Your task to perform on an android device: Search for good Chinese restaurants Image 0: 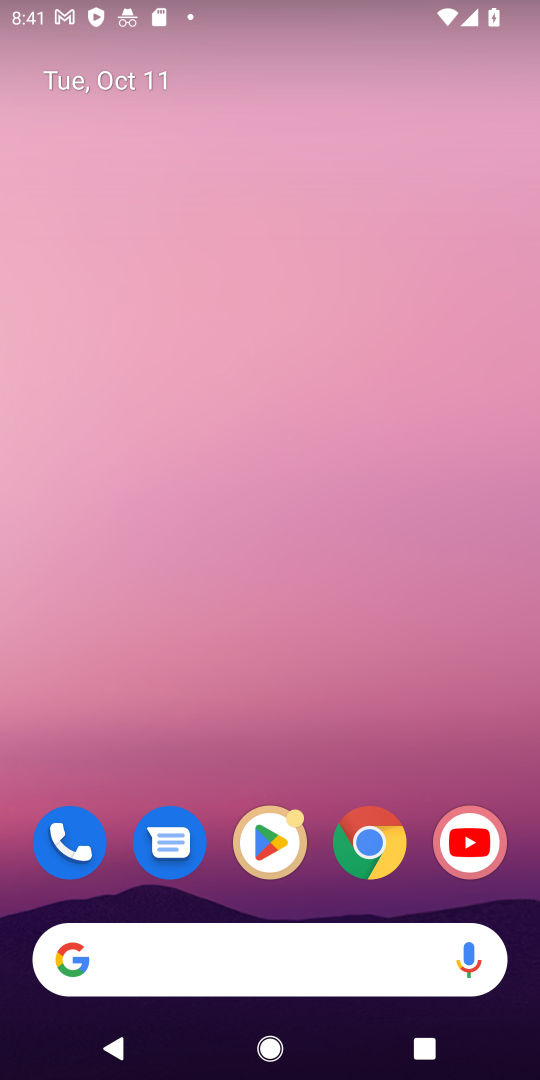
Step 0: click (200, 944)
Your task to perform on an android device: Search for good Chinese restaurants Image 1: 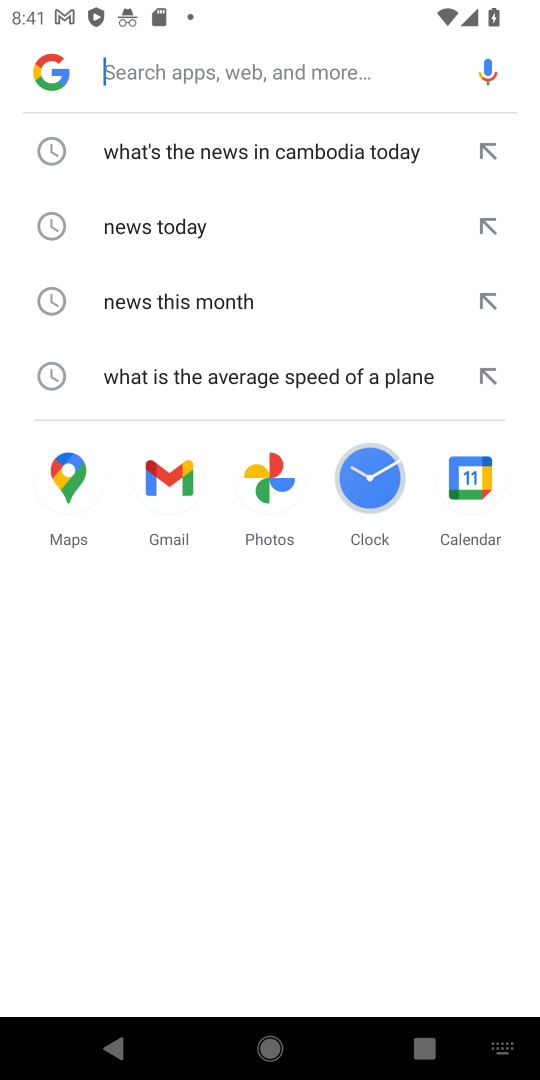
Step 1: click (69, 489)
Your task to perform on an android device: Search for good Chinese restaurants Image 2: 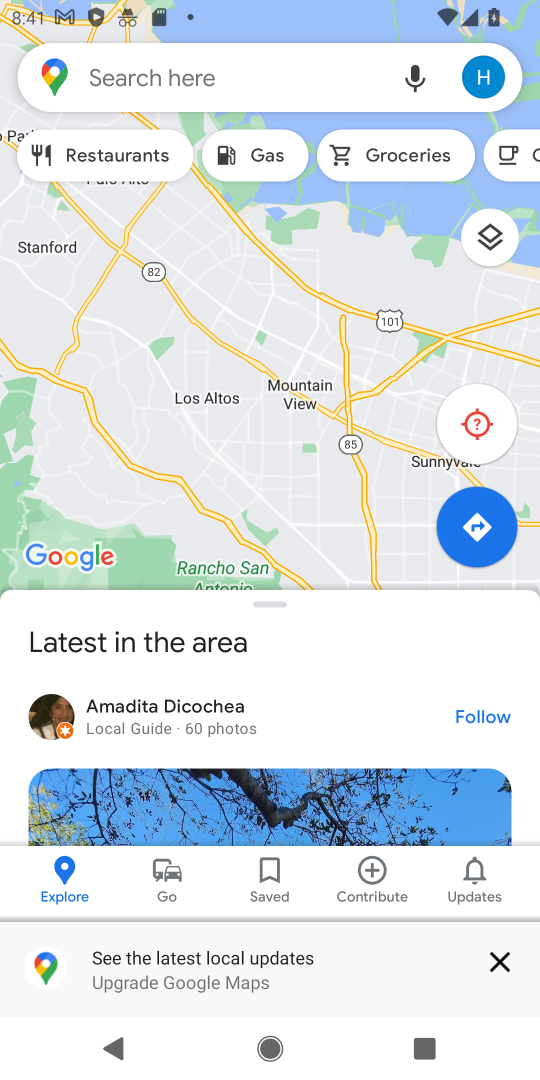
Step 2: click (185, 70)
Your task to perform on an android device: Search for good Chinese restaurants Image 3: 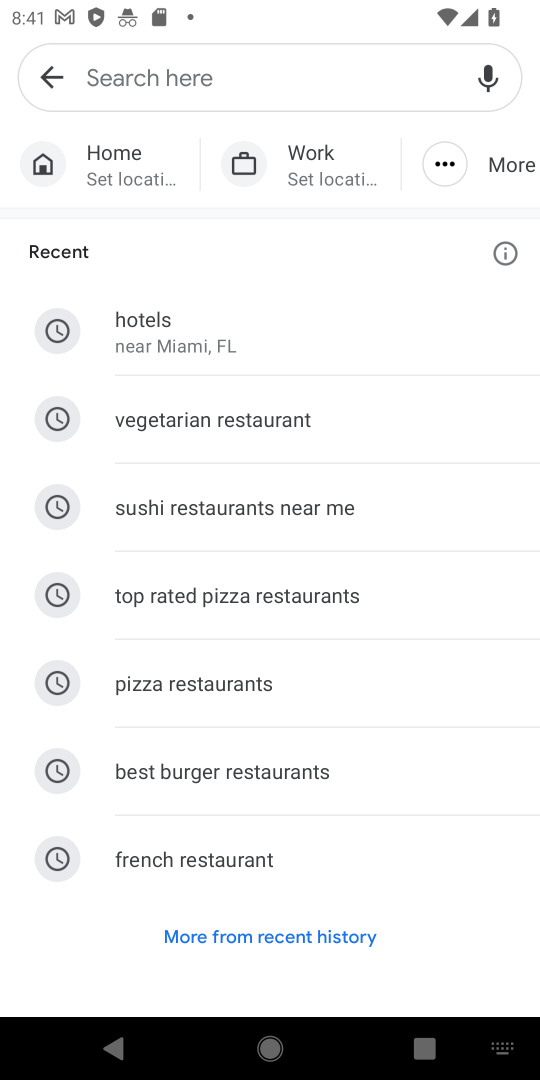
Step 3: type "good Chinese restaurants"
Your task to perform on an android device: Search for good Chinese restaurants Image 4: 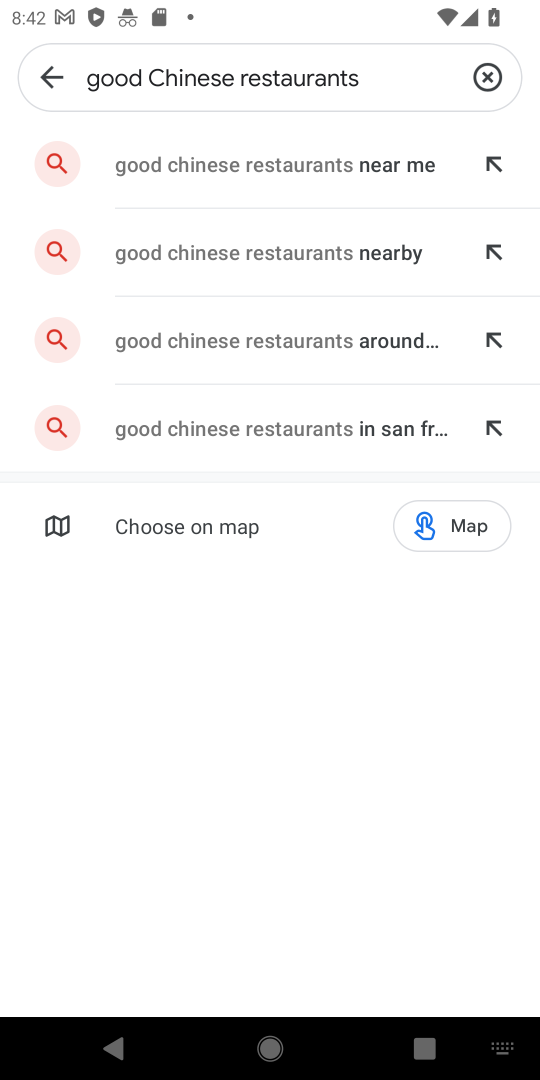
Step 4: click (314, 166)
Your task to perform on an android device: Search for good Chinese restaurants Image 5: 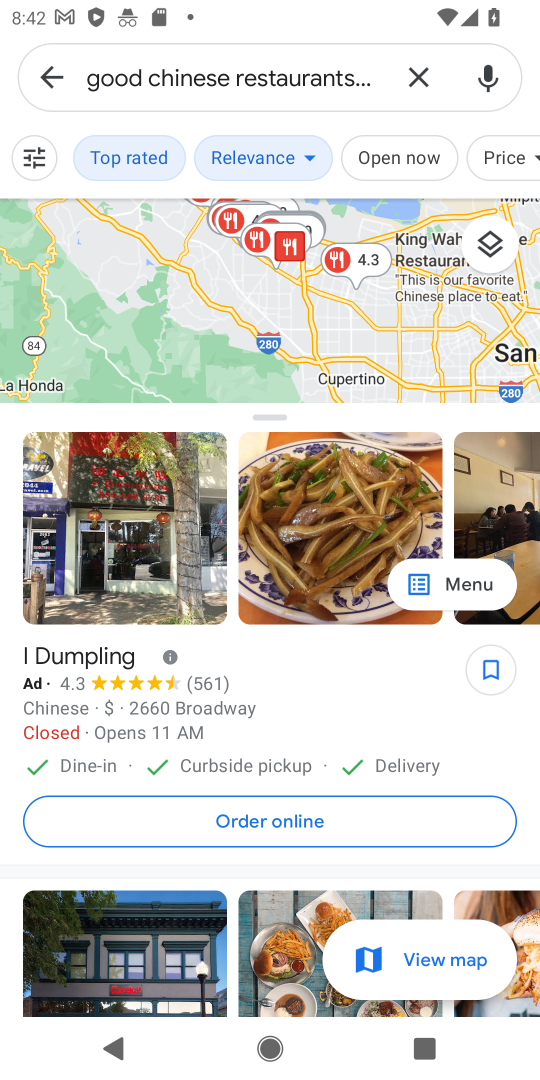
Step 5: task complete